Your task to perform on an android device: Open network settings Image 0: 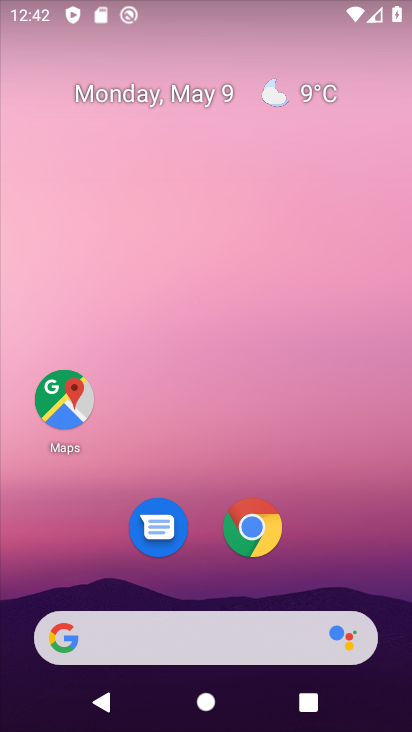
Step 0: drag from (213, 581) to (289, 43)
Your task to perform on an android device: Open network settings Image 1: 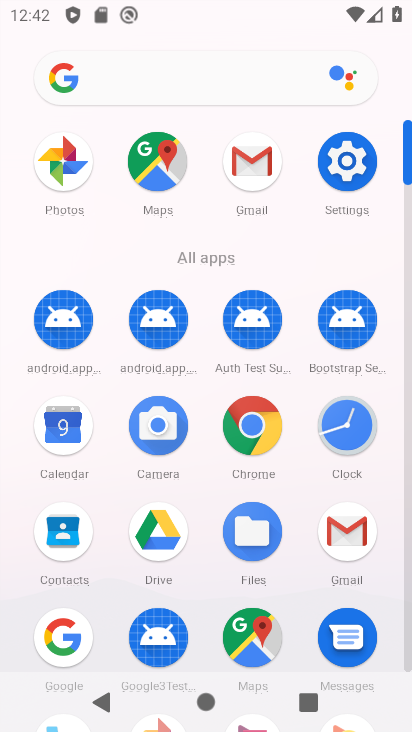
Step 1: click (322, 166)
Your task to perform on an android device: Open network settings Image 2: 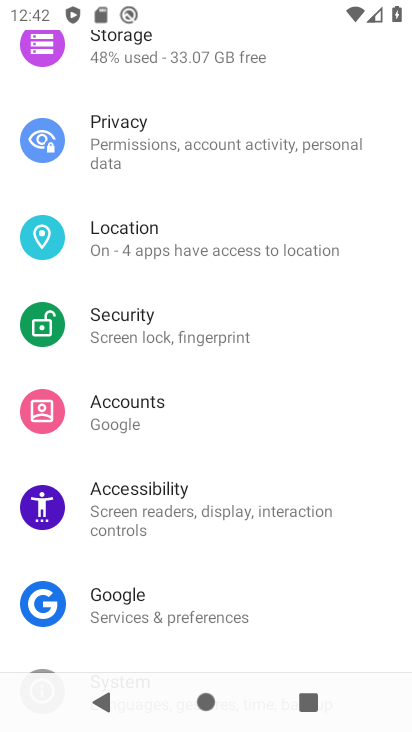
Step 2: drag from (143, 151) to (148, 595)
Your task to perform on an android device: Open network settings Image 3: 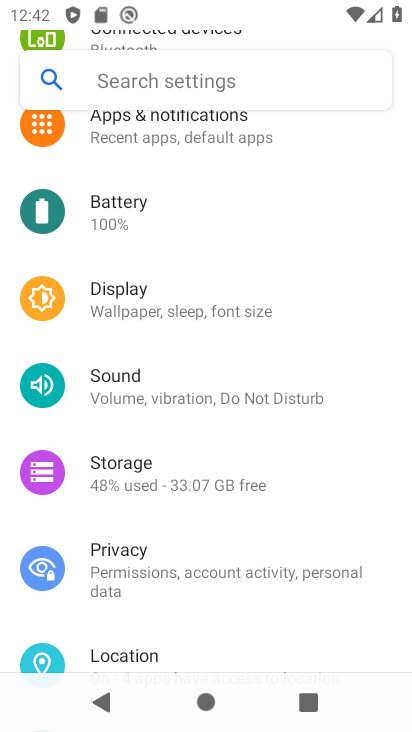
Step 3: drag from (145, 165) to (219, 512)
Your task to perform on an android device: Open network settings Image 4: 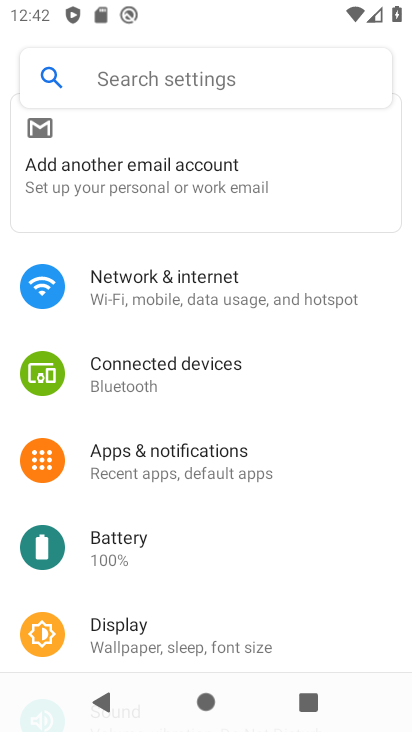
Step 4: click (203, 297)
Your task to perform on an android device: Open network settings Image 5: 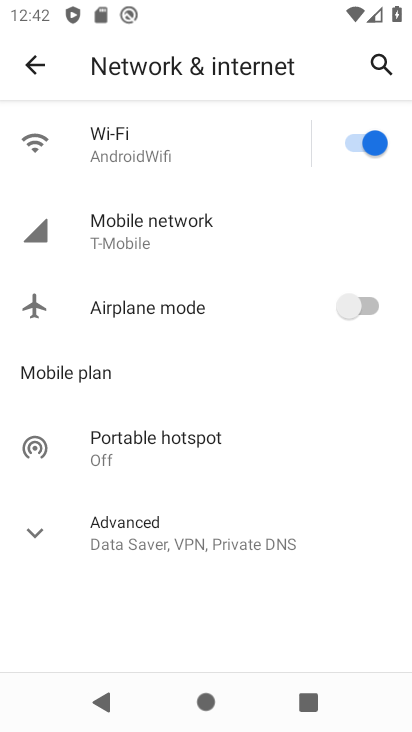
Step 5: task complete